Your task to perform on an android device: Go to calendar. Show me events next week Image 0: 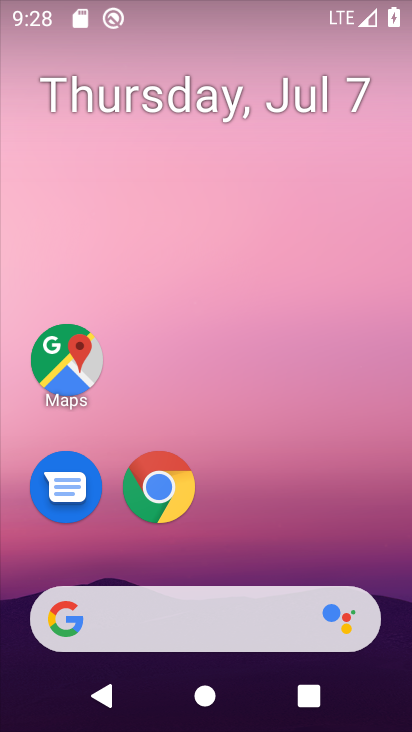
Step 0: drag from (327, 512) to (307, 71)
Your task to perform on an android device: Go to calendar. Show me events next week Image 1: 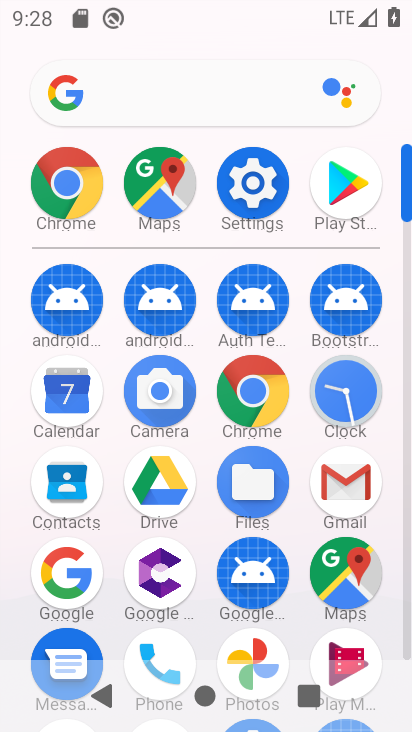
Step 1: click (91, 401)
Your task to perform on an android device: Go to calendar. Show me events next week Image 2: 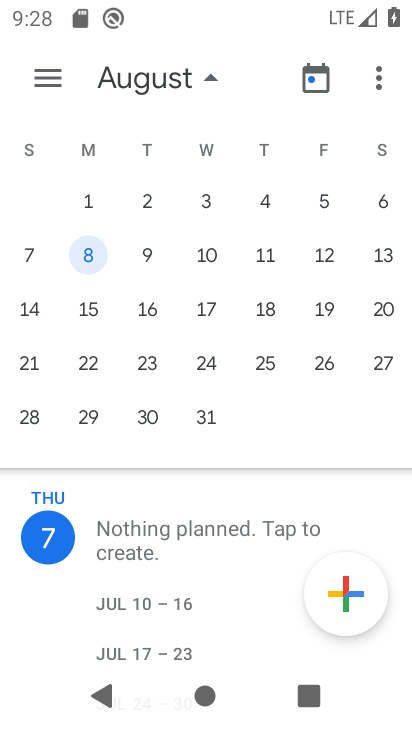
Step 2: drag from (189, 532) to (207, 180)
Your task to perform on an android device: Go to calendar. Show me events next week Image 3: 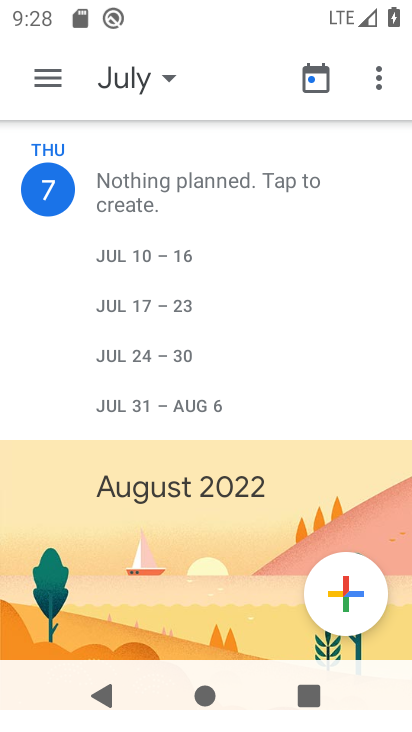
Step 3: drag from (229, 520) to (223, 394)
Your task to perform on an android device: Go to calendar. Show me events next week Image 4: 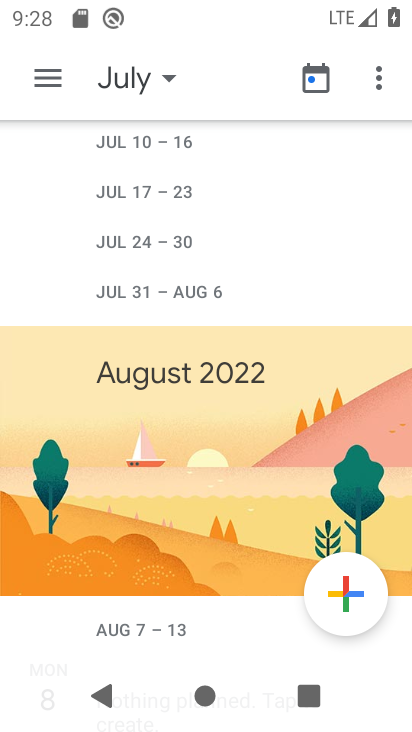
Step 4: click (166, 77)
Your task to perform on an android device: Go to calendar. Show me events next week Image 5: 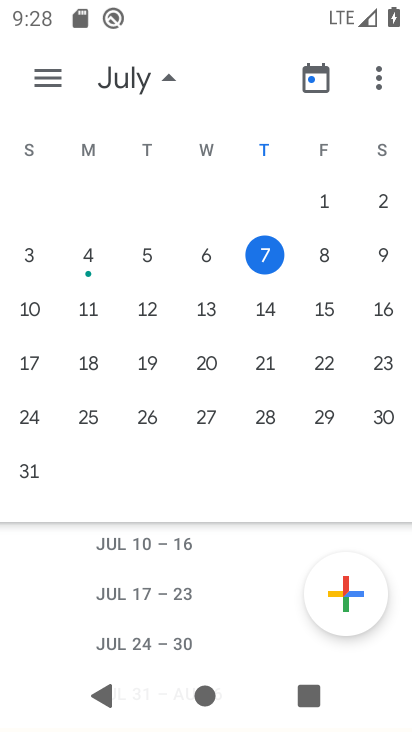
Step 5: click (83, 320)
Your task to perform on an android device: Go to calendar. Show me events next week Image 6: 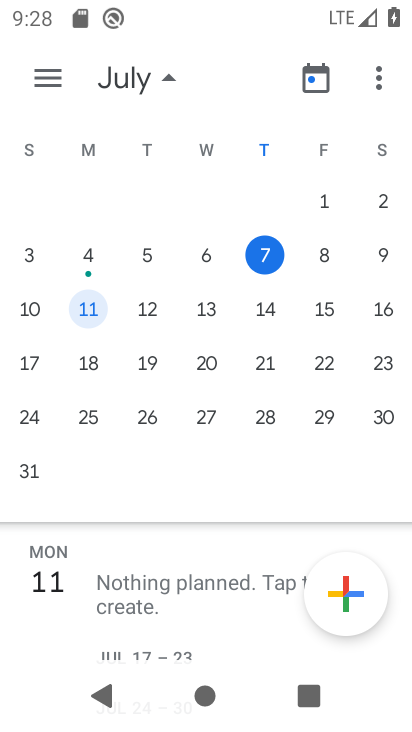
Step 6: task complete